Your task to perform on an android device: open a bookmark in the chrome app Image 0: 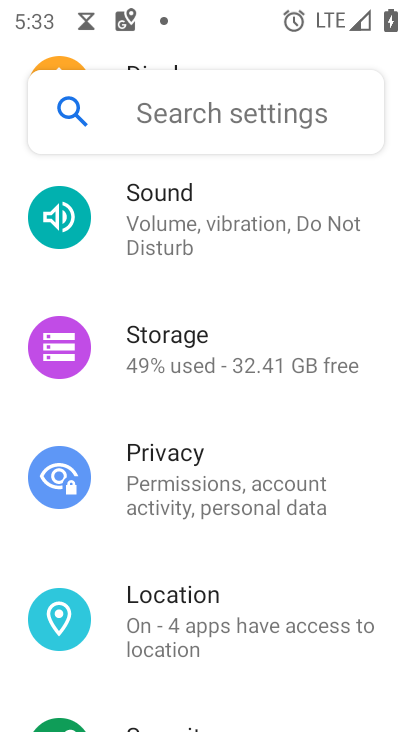
Step 0: press home button
Your task to perform on an android device: open a bookmark in the chrome app Image 1: 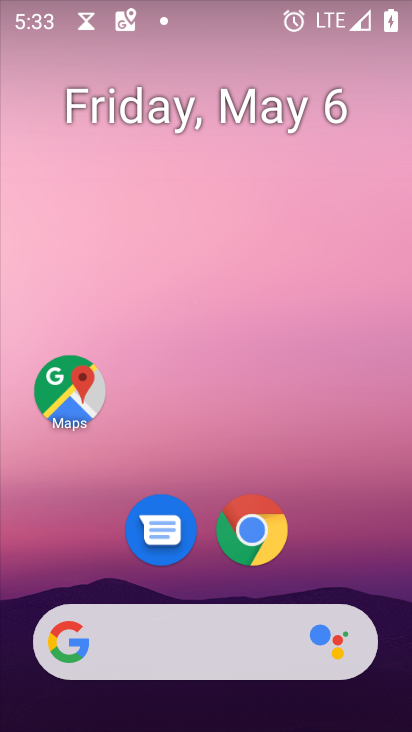
Step 1: click (263, 539)
Your task to perform on an android device: open a bookmark in the chrome app Image 2: 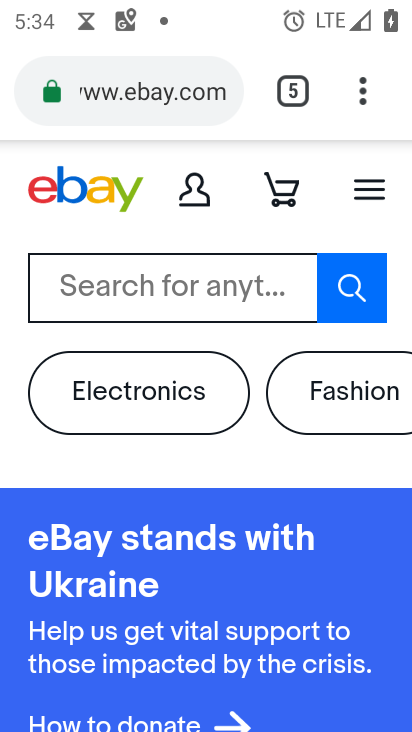
Step 2: click (360, 87)
Your task to perform on an android device: open a bookmark in the chrome app Image 3: 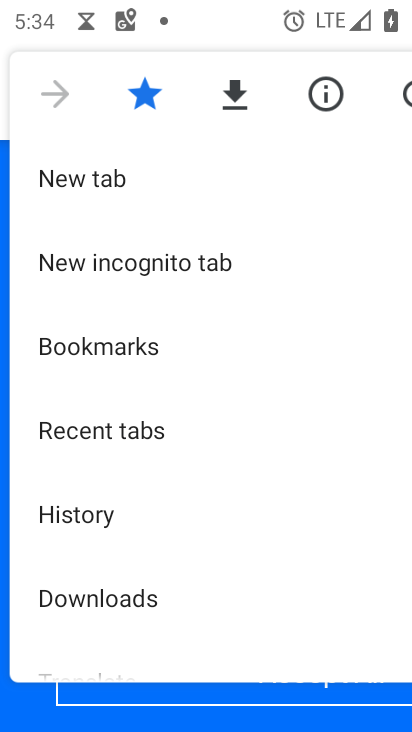
Step 3: click (183, 344)
Your task to perform on an android device: open a bookmark in the chrome app Image 4: 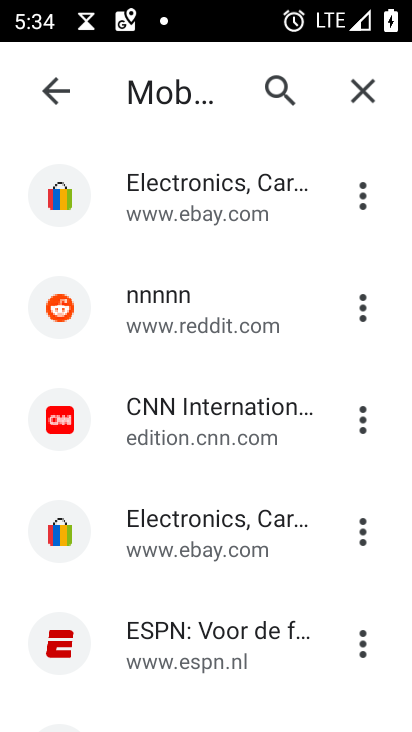
Step 4: click (200, 205)
Your task to perform on an android device: open a bookmark in the chrome app Image 5: 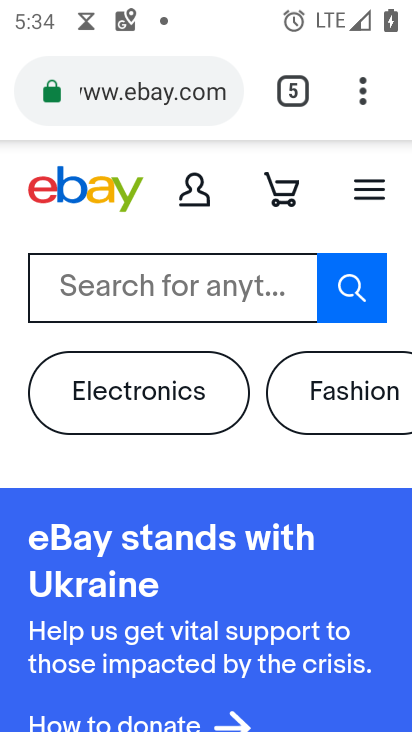
Step 5: task complete